Your task to perform on an android device: change text size in settings app Image 0: 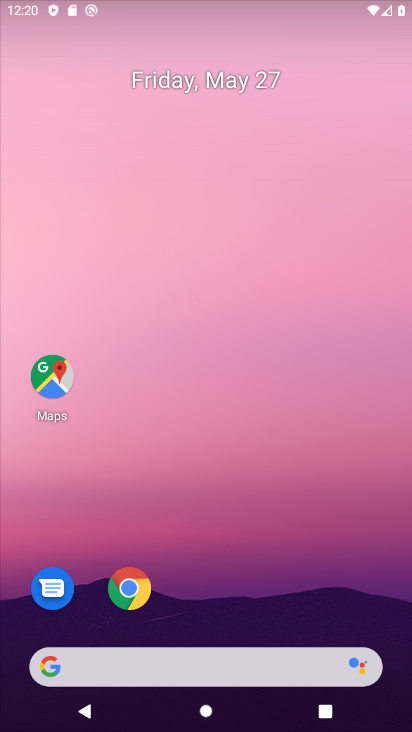
Step 0: press home button
Your task to perform on an android device: change text size in settings app Image 1: 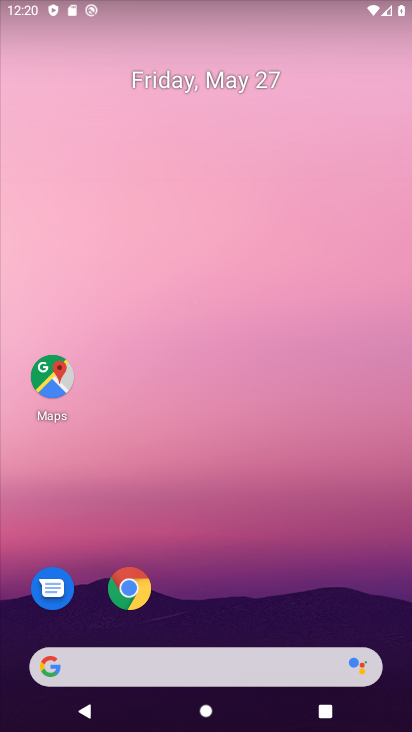
Step 1: drag from (211, 602) to (218, 54)
Your task to perform on an android device: change text size in settings app Image 2: 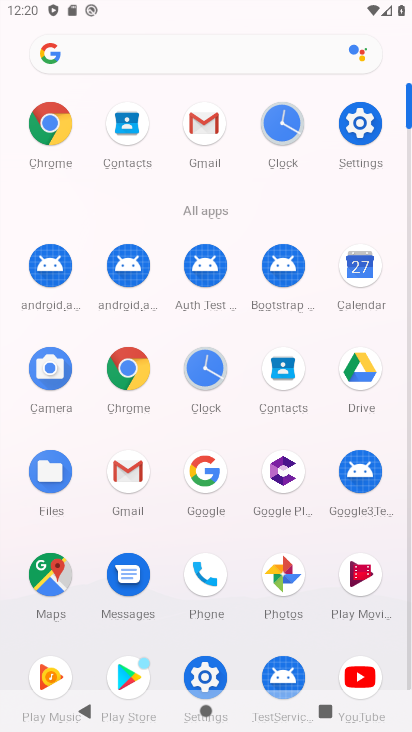
Step 2: click (362, 122)
Your task to perform on an android device: change text size in settings app Image 3: 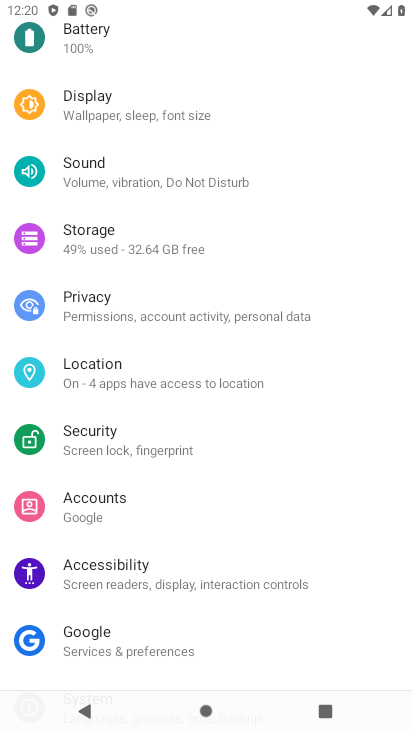
Step 3: click (123, 99)
Your task to perform on an android device: change text size in settings app Image 4: 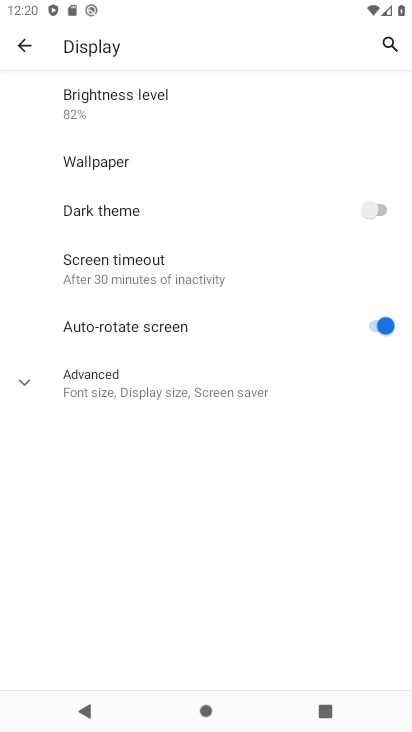
Step 4: click (28, 377)
Your task to perform on an android device: change text size in settings app Image 5: 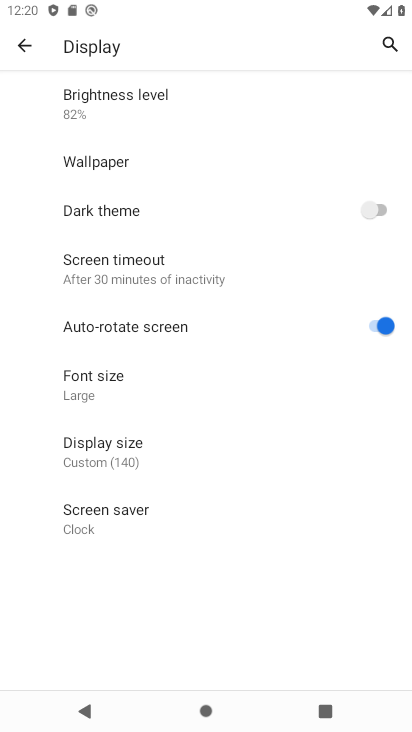
Step 5: click (102, 386)
Your task to perform on an android device: change text size in settings app Image 6: 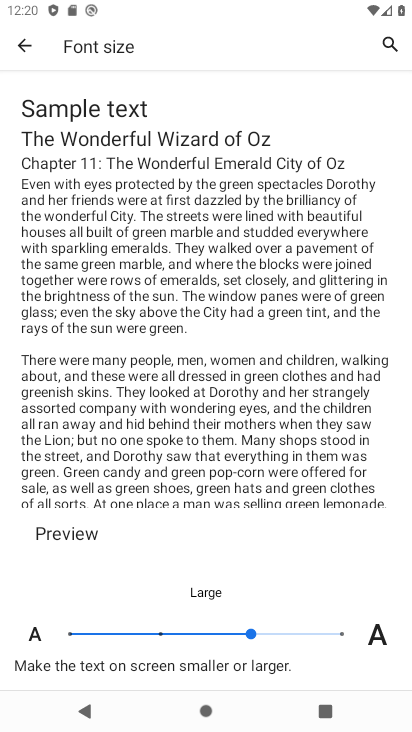
Step 6: click (159, 635)
Your task to perform on an android device: change text size in settings app Image 7: 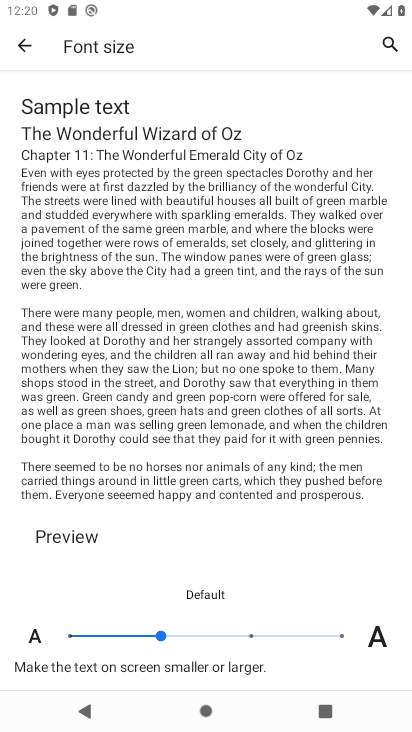
Step 7: task complete